Your task to perform on an android device: change the clock display to digital Image 0: 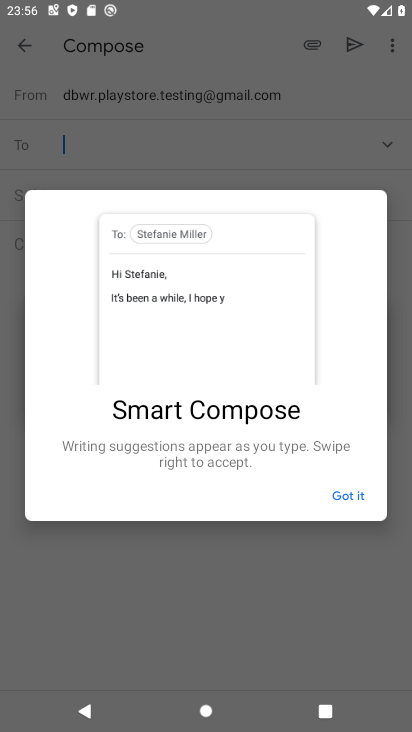
Step 0: press home button
Your task to perform on an android device: change the clock display to digital Image 1: 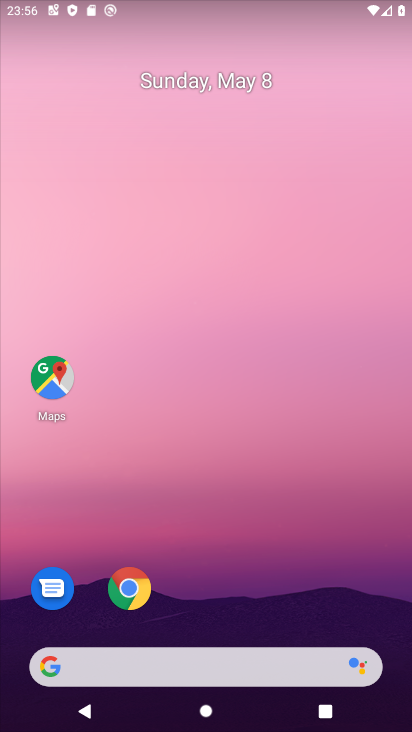
Step 1: drag from (252, 545) to (179, 4)
Your task to perform on an android device: change the clock display to digital Image 2: 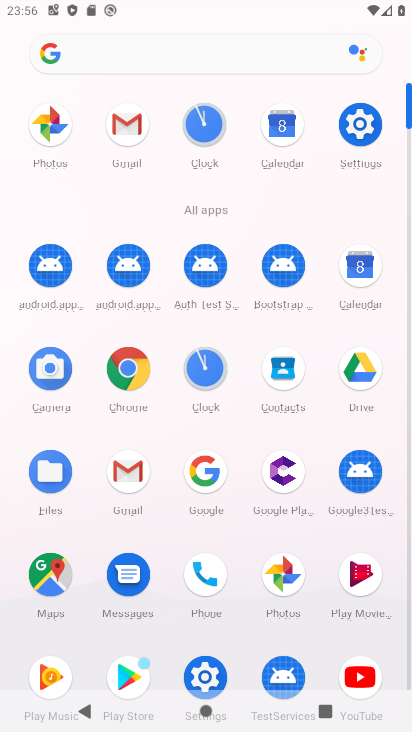
Step 2: click (205, 140)
Your task to perform on an android device: change the clock display to digital Image 3: 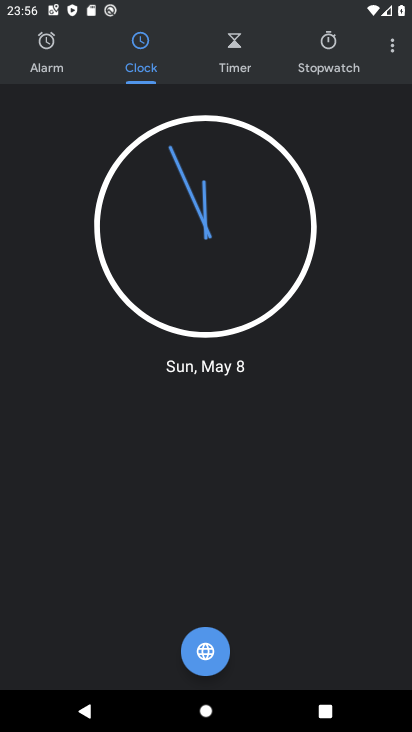
Step 3: click (391, 47)
Your task to perform on an android device: change the clock display to digital Image 4: 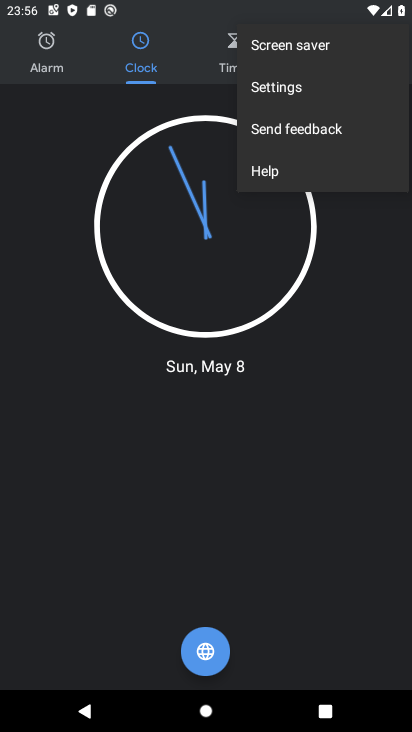
Step 4: click (285, 90)
Your task to perform on an android device: change the clock display to digital Image 5: 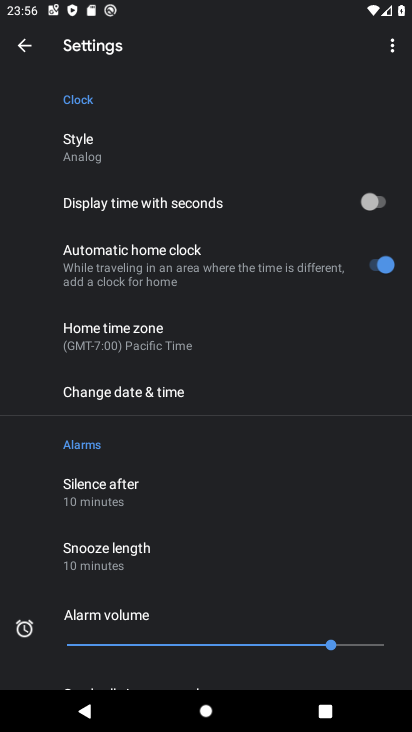
Step 5: click (77, 140)
Your task to perform on an android device: change the clock display to digital Image 6: 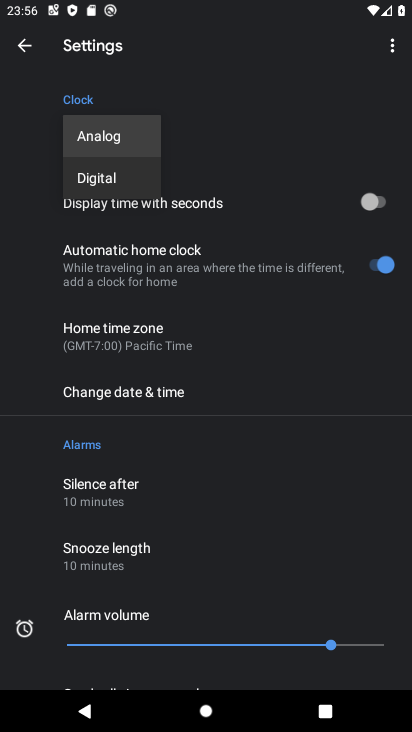
Step 6: click (102, 180)
Your task to perform on an android device: change the clock display to digital Image 7: 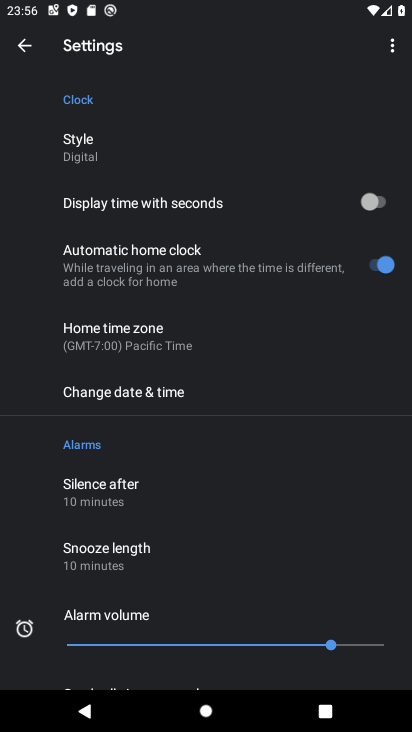
Step 7: task complete